Your task to perform on an android device: turn on airplane mode Image 0: 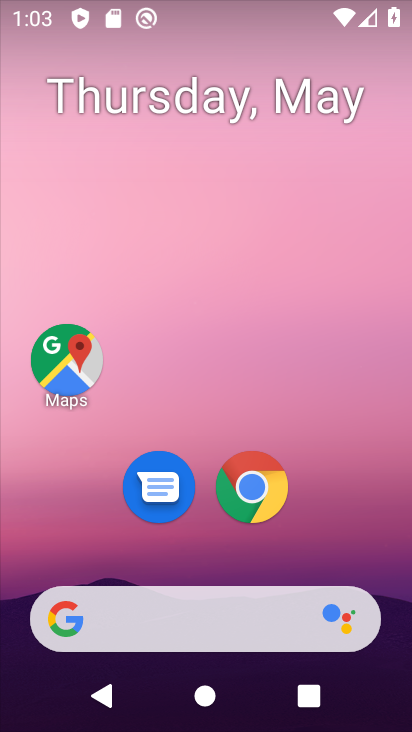
Step 0: drag from (349, 539) to (293, 157)
Your task to perform on an android device: turn on airplane mode Image 1: 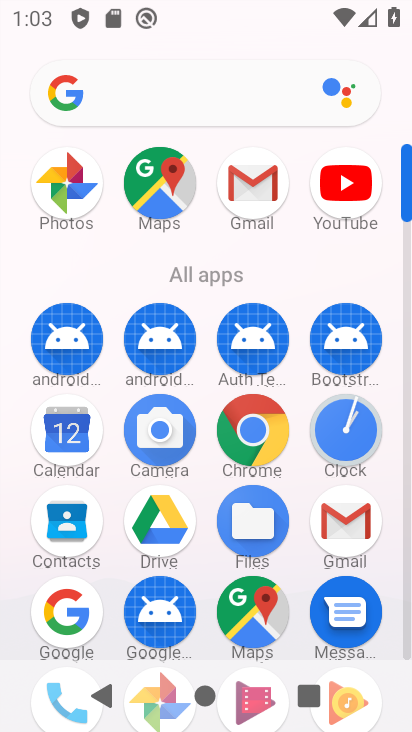
Step 1: drag from (203, 644) to (223, 279)
Your task to perform on an android device: turn on airplane mode Image 2: 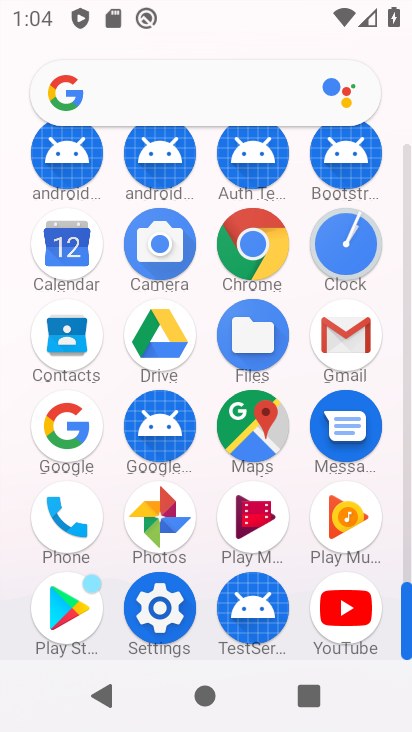
Step 2: click (161, 613)
Your task to perform on an android device: turn on airplane mode Image 3: 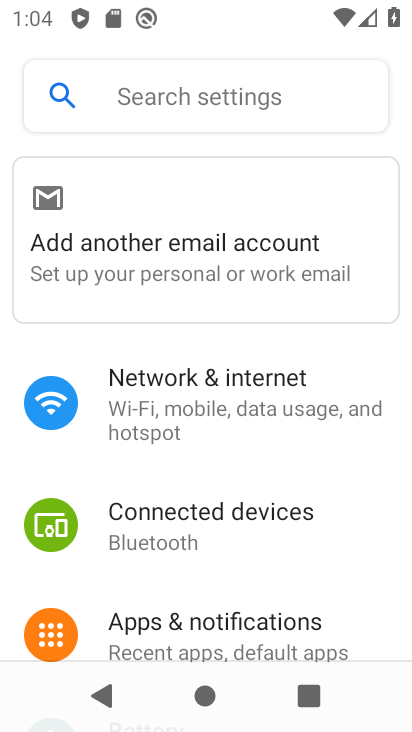
Step 3: drag from (230, 613) to (260, 251)
Your task to perform on an android device: turn on airplane mode Image 4: 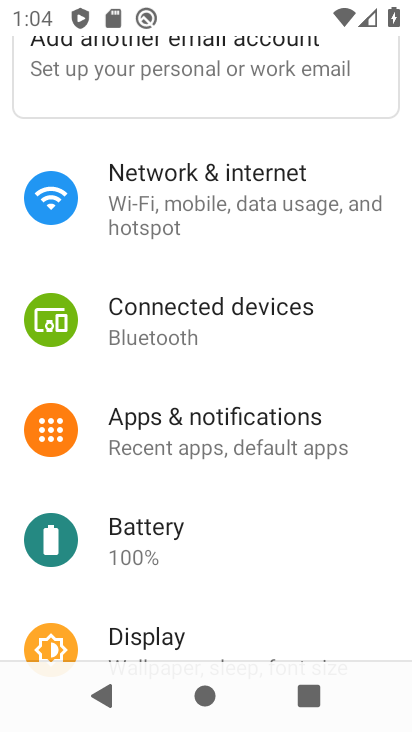
Step 4: drag from (193, 613) to (218, 111)
Your task to perform on an android device: turn on airplane mode Image 5: 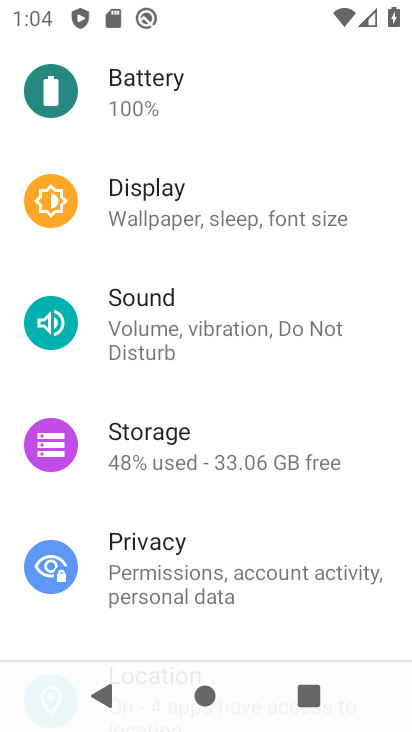
Step 5: drag from (233, 554) to (267, 185)
Your task to perform on an android device: turn on airplane mode Image 6: 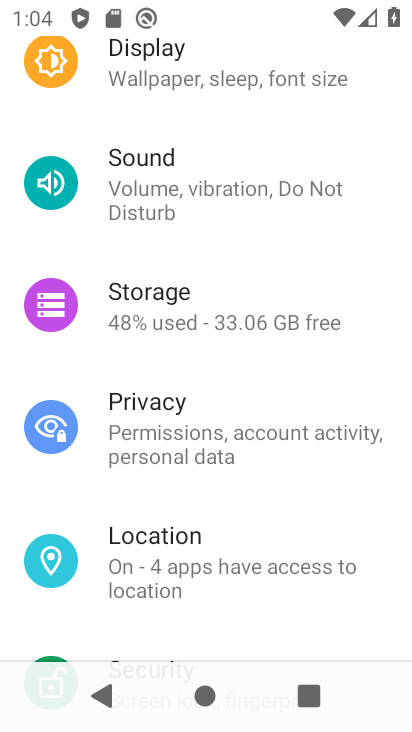
Step 6: drag from (264, 611) to (306, 248)
Your task to perform on an android device: turn on airplane mode Image 7: 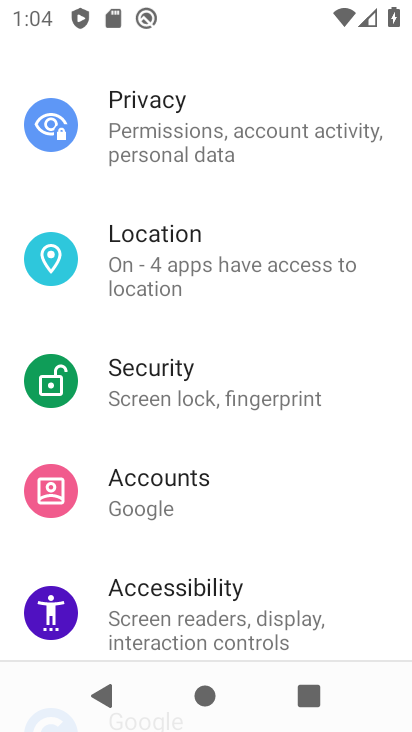
Step 7: click (207, 549)
Your task to perform on an android device: turn on airplane mode Image 8: 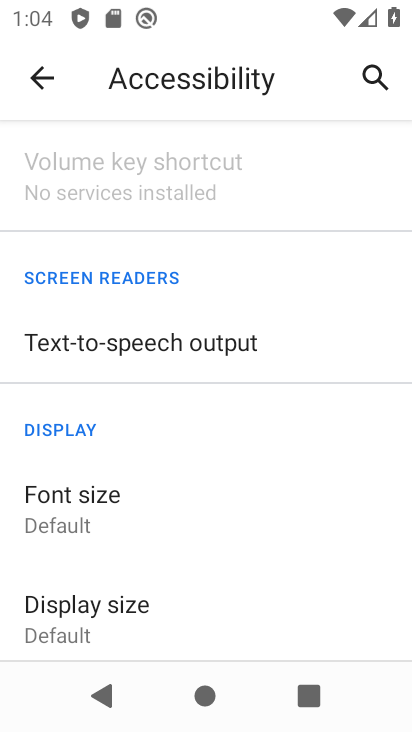
Step 8: click (33, 70)
Your task to perform on an android device: turn on airplane mode Image 9: 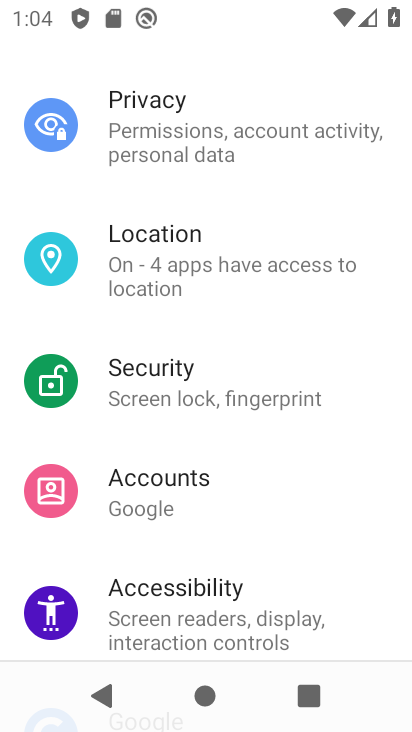
Step 9: click (218, 435)
Your task to perform on an android device: turn on airplane mode Image 10: 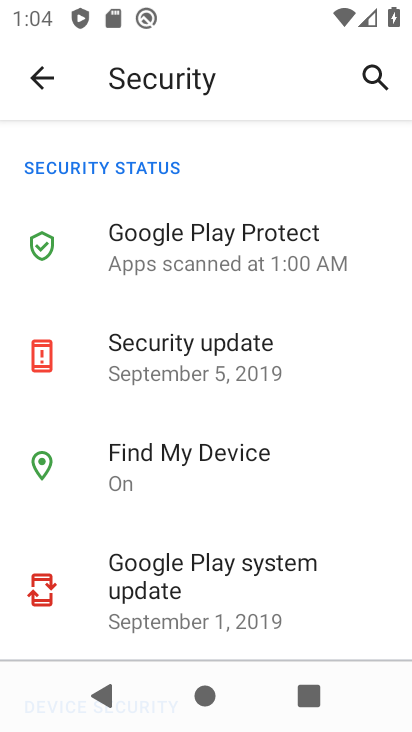
Step 10: click (33, 74)
Your task to perform on an android device: turn on airplane mode Image 11: 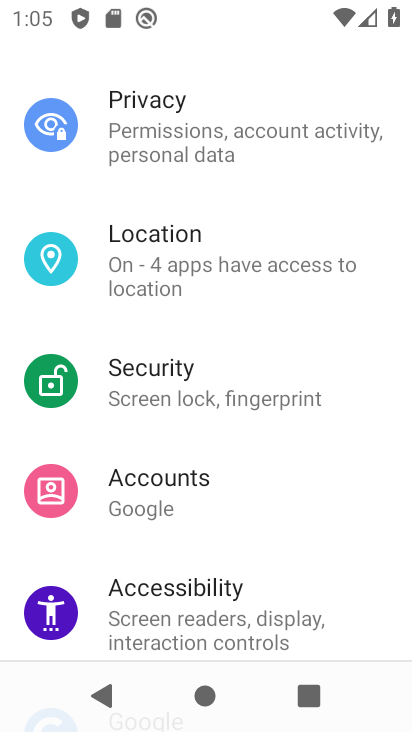
Step 11: drag from (267, 578) to (310, 213)
Your task to perform on an android device: turn on airplane mode Image 12: 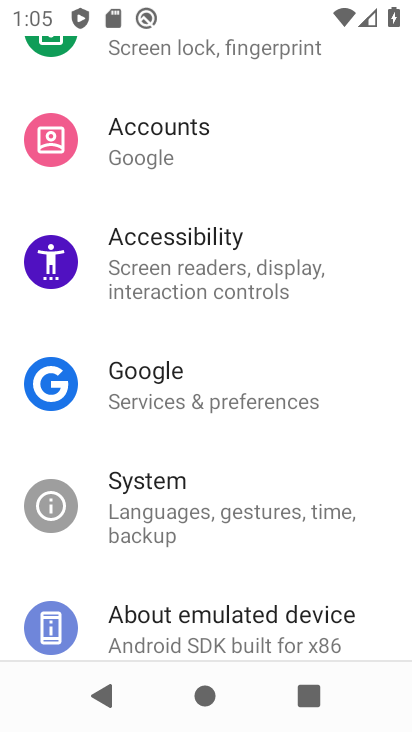
Step 12: drag from (207, 434) to (194, 201)
Your task to perform on an android device: turn on airplane mode Image 13: 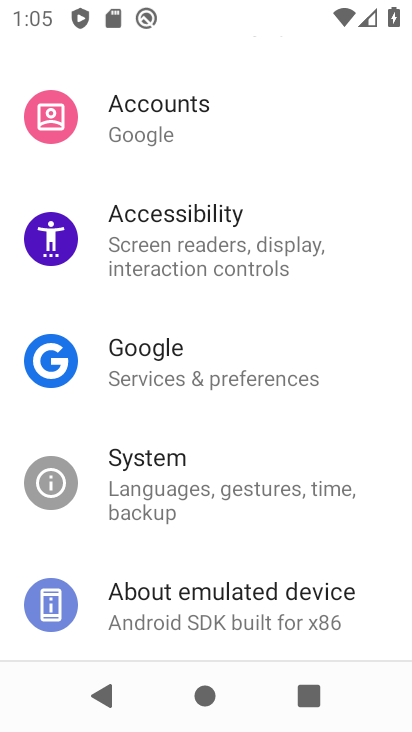
Step 13: drag from (223, 267) to (212, 629)
Your task to perform on an android device: turn on airplane mode Image 14: 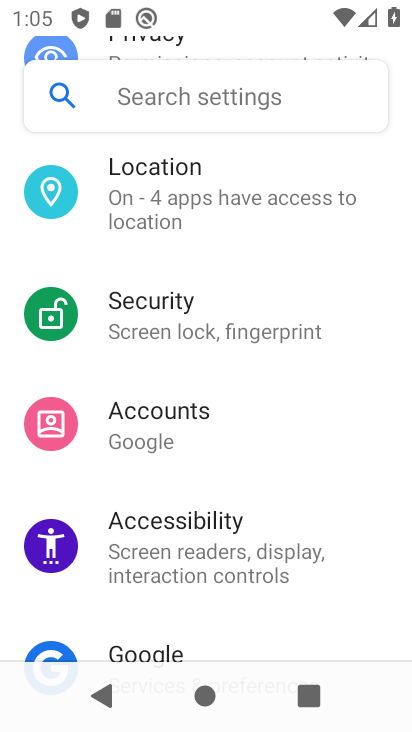
Step 14: drag from (232, 396) to (207, 728)
Your task to perform on an android device: turn on airplane mode Image 15: 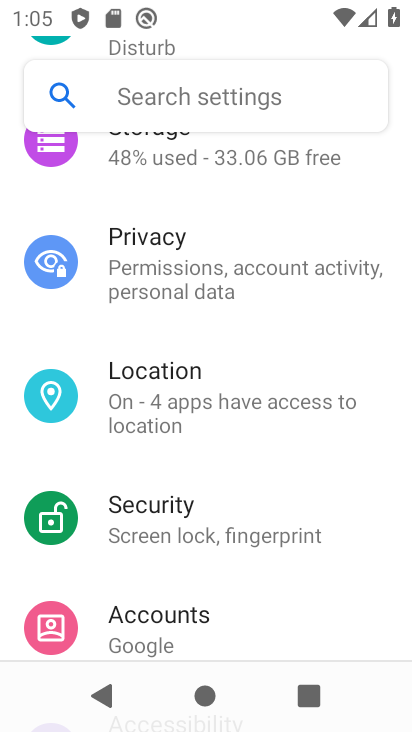
Step 15: drag from (263, 361) to (237, 700)
Your task to perform on an android device: turn on airplane mode Image 16: 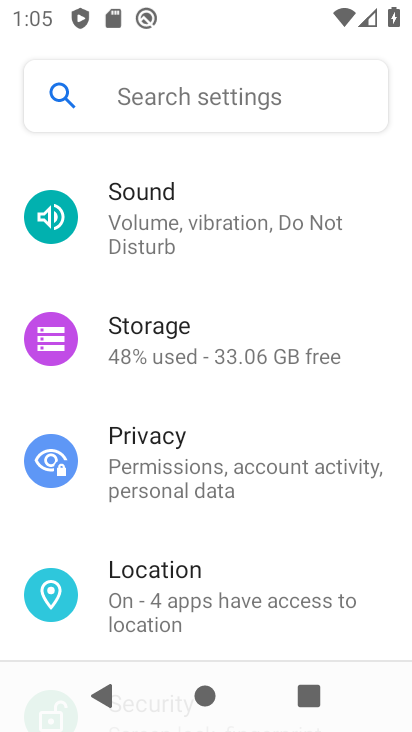
Step 16: click (212, 591)
Your task to perform on an android device: turn on airplane mode Image 17: 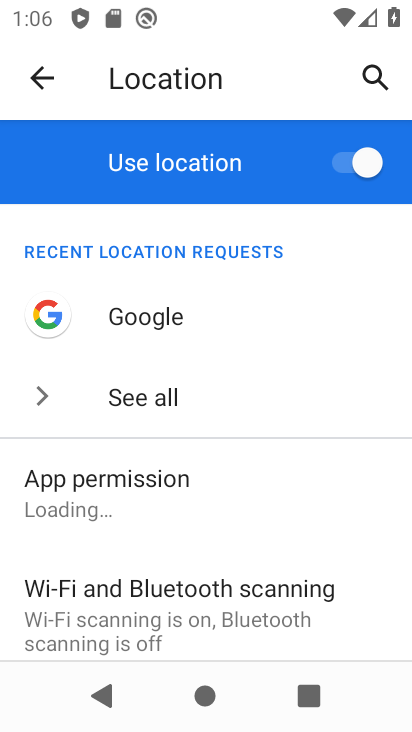
Step 17: click (37, 78)
Your task to perform on an android device: turn on airplane mode Image 18: 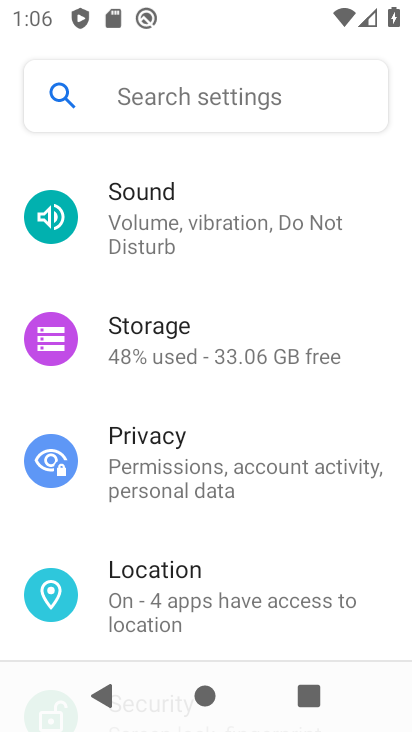
Step 18: drag from (206, 245) to (191, 519)
Your task to perform on an android device: turn on airplane mode Image 19: 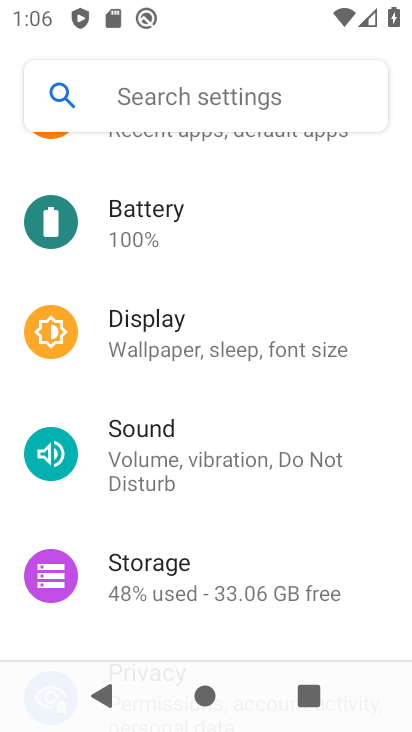
Step 19: drag from (233, 230) to (253, 723)
Your task to perform on an android device: turn on airplane mode Image 20: 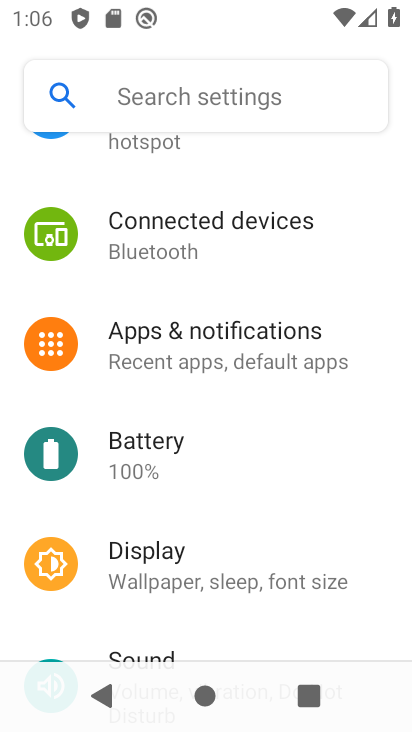
Step 20: click (237, 684)
Your task to perform on an android device: turn on airplane mode Image 21: 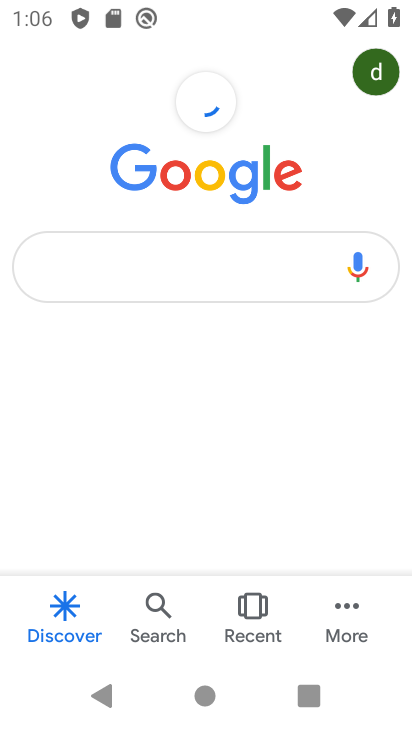
Step 21: press home button
Your task to perform on an android device: turn on airplane mode Image 22: 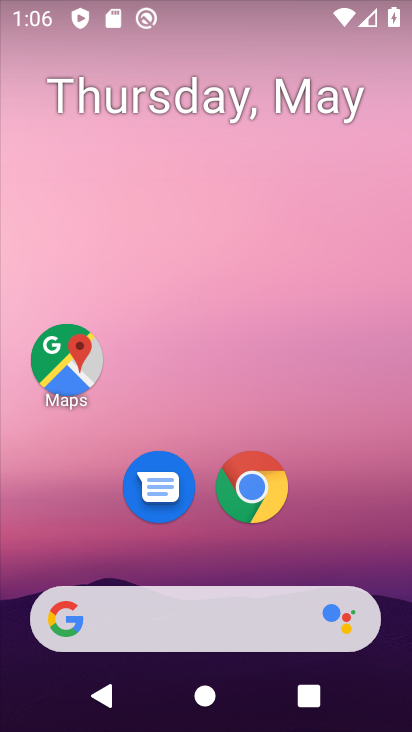
Step 22: drag from (270, 560) to (335, 174)
Your task to perform on an android device: turn on airplane mode Image 23: 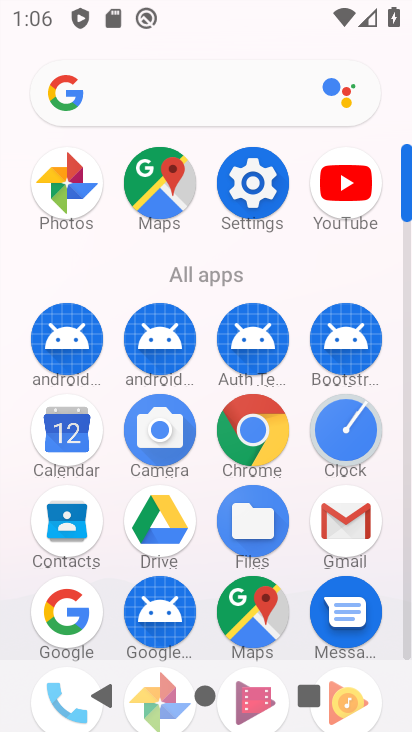
Step 23: click (255, 222)
Your task to perform on an android device: turn on airplane mode Image 24: 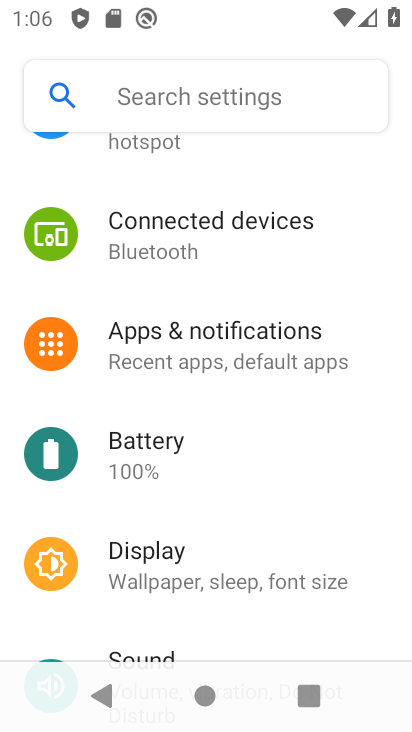
Step 24: click (244, 516)
Your task to perform on an android device: turn on airplane mode Image 25: 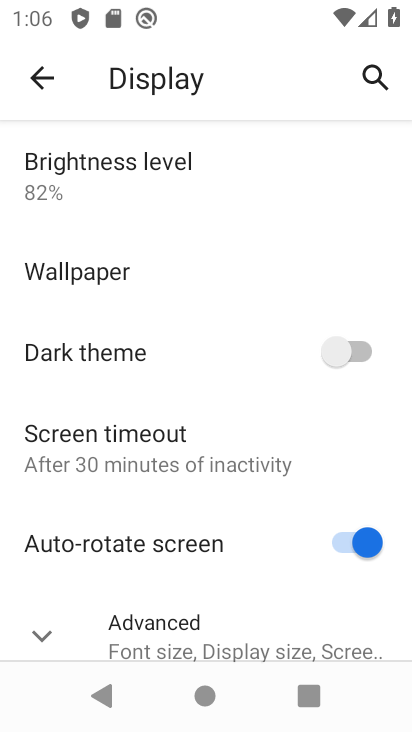
Step 25: click (34, 85)
Your task to perform on an android device: turn on airplane mode Image 26: 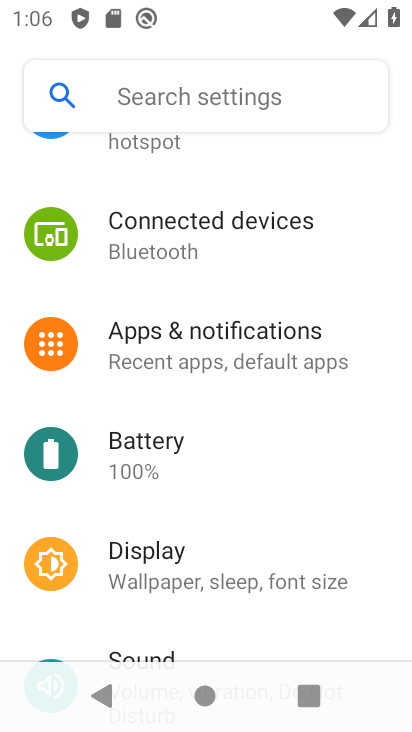
Step 26: drag from (207, 281) to (210, 571)
Your task to perform on an android device: turn on airplane mode Image 27: 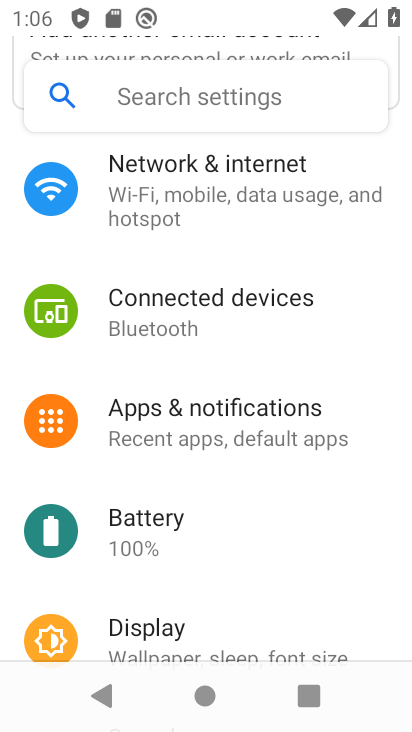
Step 27: click (166, 222)
Your task to perform on an android device: turn on airplane mode Image 28: 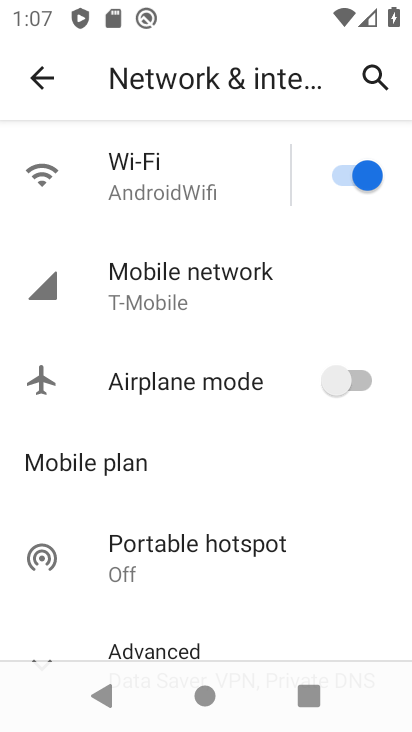
Step 28: click (359, 382)
Your task to perform on an android device: turn on airplane mode Image 29: 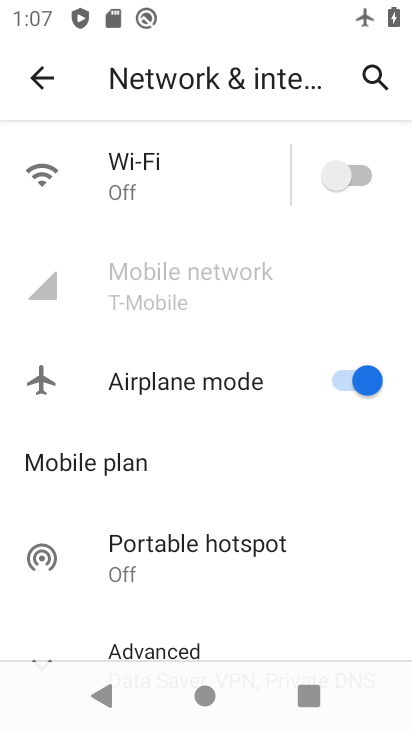
Step 29: task complete